Your task to perform on an android device: turn off data saver in the chrome app Image 0: 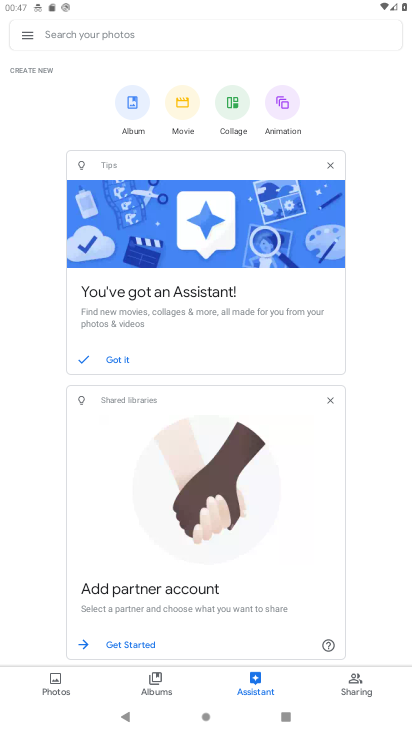
Step 0: press home button
Your task to perform on an android device: turn off data saver in the chrome app Image 1: 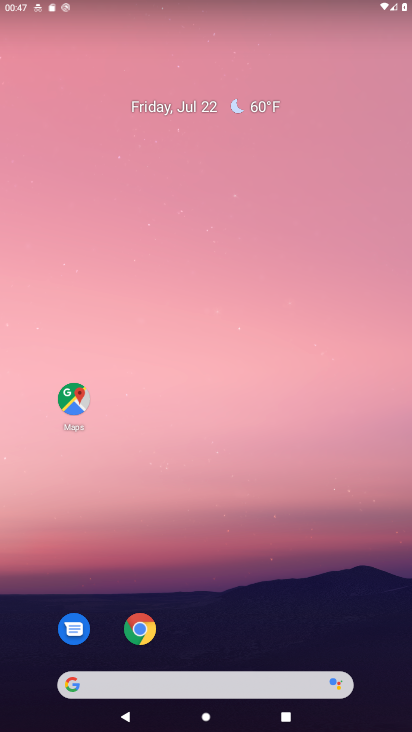
Step 1: click (152, 629)
Your task to perform on an android device: turn off data saver in the chrome app Image 2: 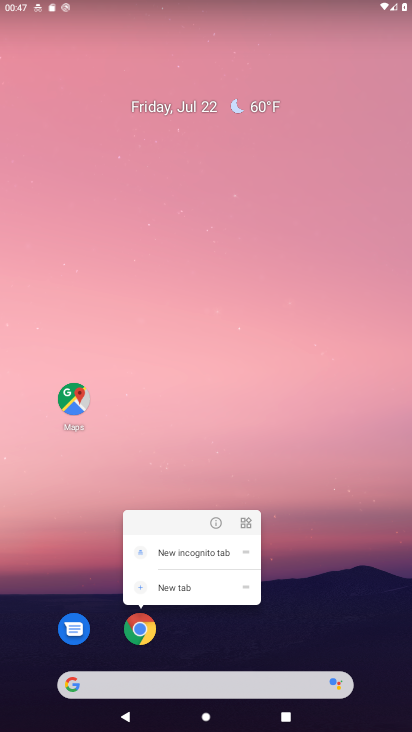
Step 2: click (136, 634)
Your task to perform on an android device: turn off data saver in the chrome app Image 3: 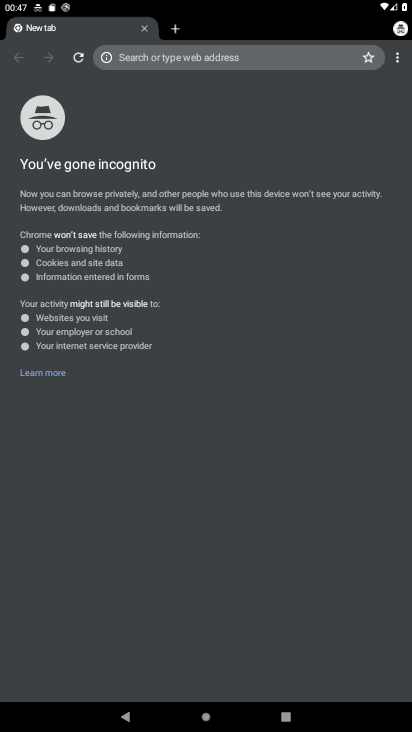
Step 3: click (396, 53)
Your task to perform on an android device: turn off data saver in the chrome app Image 4: 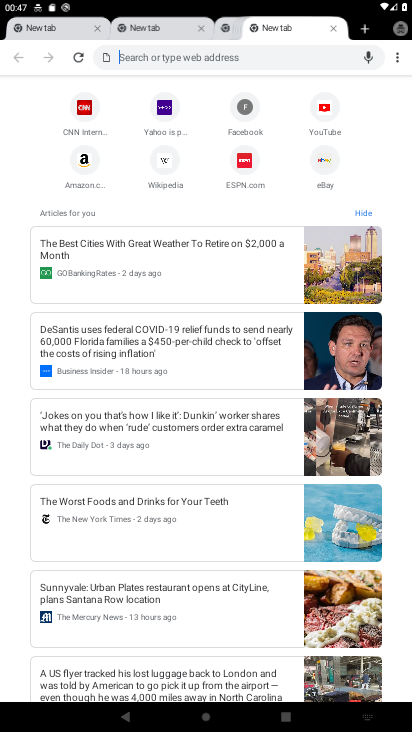
Step 4: click (399, 56)
Your task to perform on an android device: turn off data saver in the chrome app Image 5: 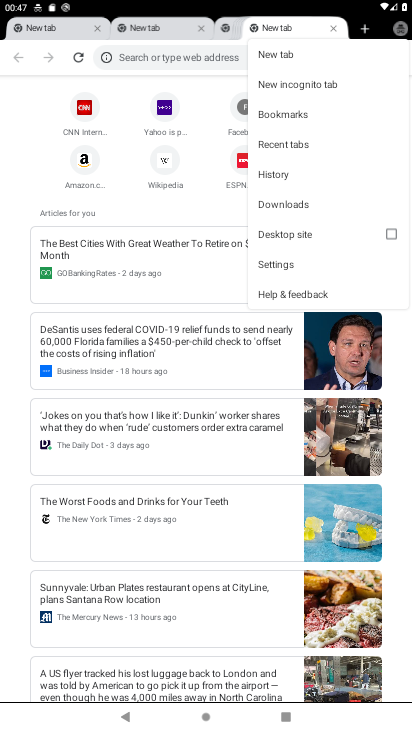
Step 5: click (294, 261)
Your task to perform on an android device: turn off data saver in the chrome app Image 6: 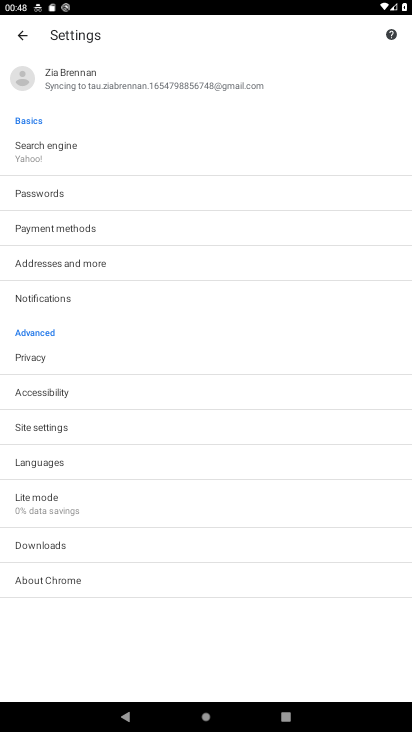
Step 6: click (50, 506)
Your task to perform on an android device: turn off data saver in the chrome app Image 7: 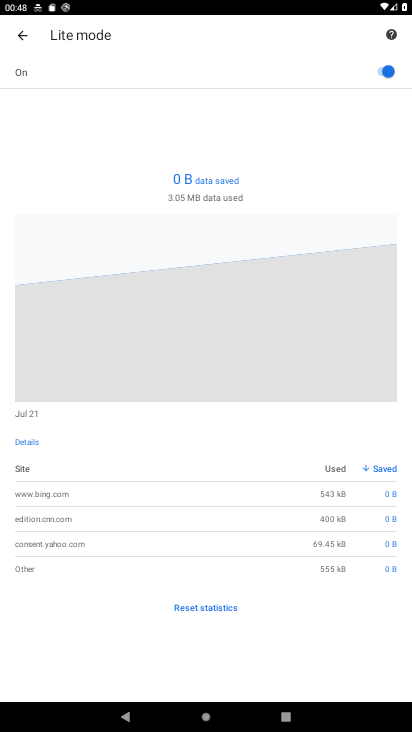
Step 7: click (382, 71)
Your task to perform on an android device: turn off data saver in the chrome app Image 8: 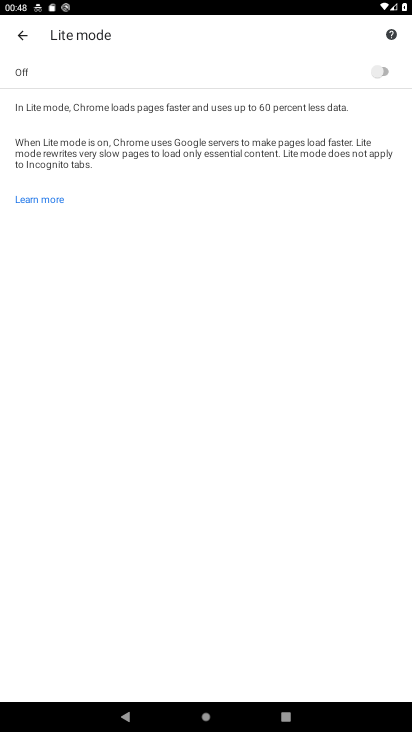
Step 8: task complete